Your task to perform on an android device: toggle improve location accuracy Image 0: 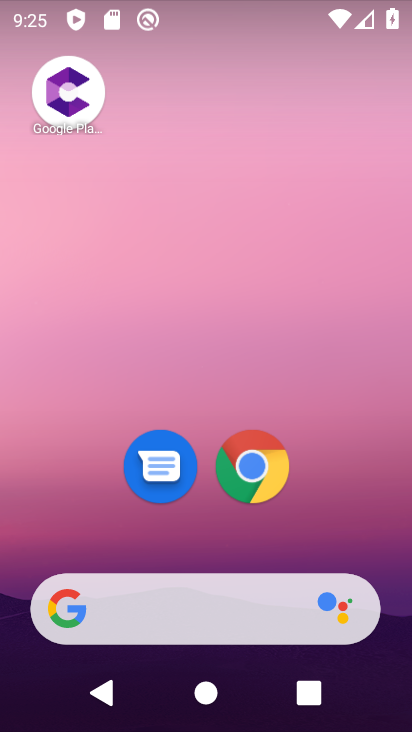
Step 0: drag from (192, 520) to (200, 196)
Your task to perform on an android device: toggle improve location accuracy Image 1: 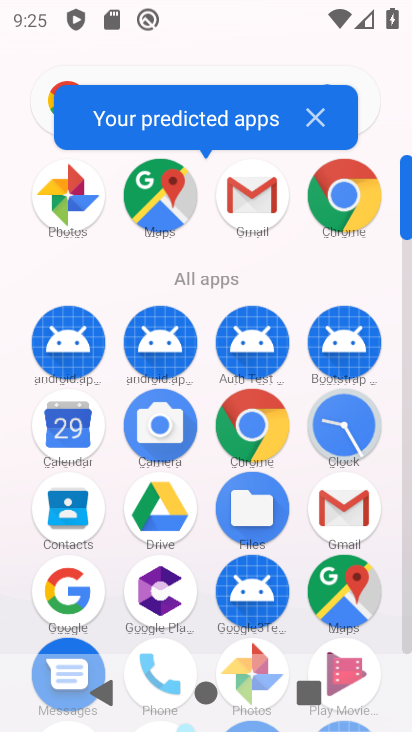
Step 1: drag from (203, 495) to (218, 277)
Your task to perform on an android device: toggle improve location accuracy Image 2: 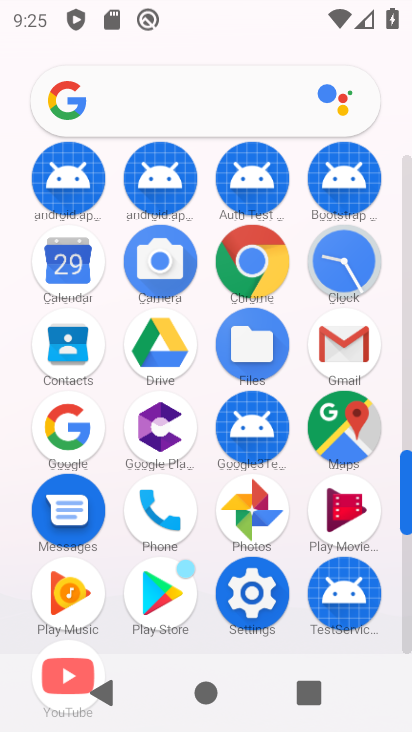
Step 2: click (232, 598)
Your task to perform on an android device: toggle improve location accuracy Image 3: 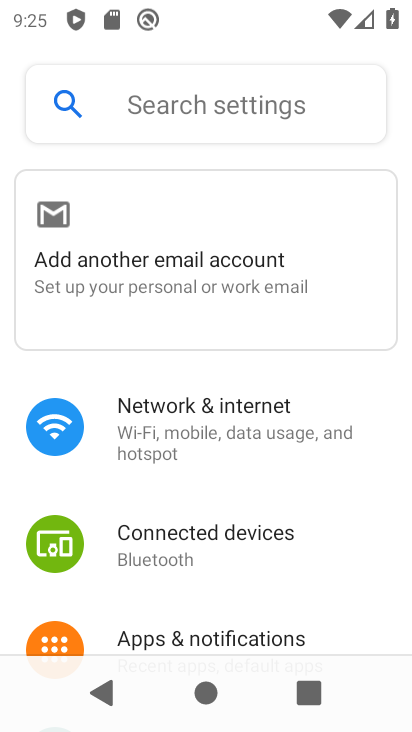
Step 3: drag from (187, 561) to (211, 294)
Your task to perform on an android device: toggle improve location accuracy Image 4: 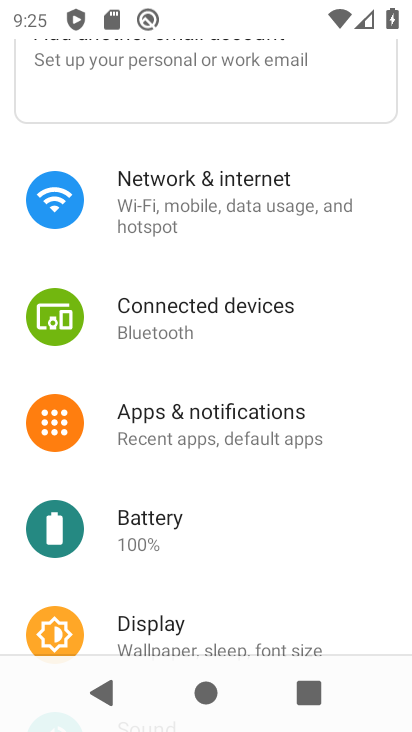
Step 4: drag from (222, 544) to (243, 274)
Your task to perform on an android device: toggle improve location accuracy Image 5: 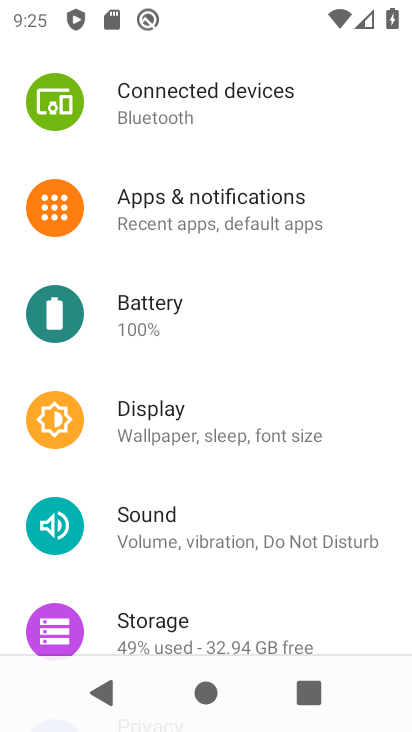
Step 5: drag from (213, 515) to (224, 286)
Your task to perform on an android device: toggle improve location accuracy Image 6: 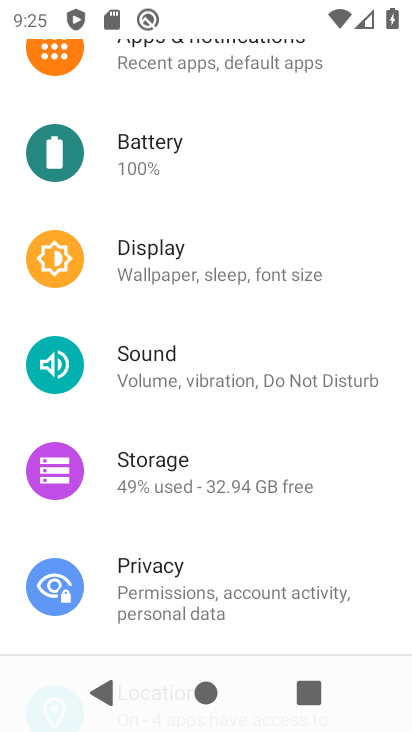
Step 6: drag from (224, 589) to (248, 291)
Your task to perform on an android device: toggle improve location accuracy Image 7: 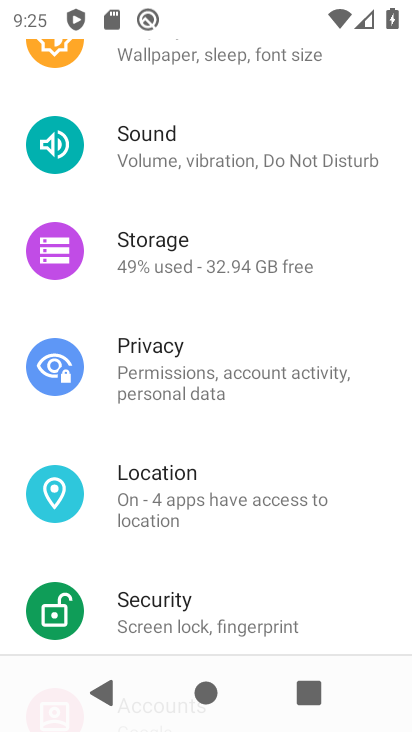
Step 7: click (244, 498)
Your task to perform on an android device: toggle improve location accuracy Image 8: 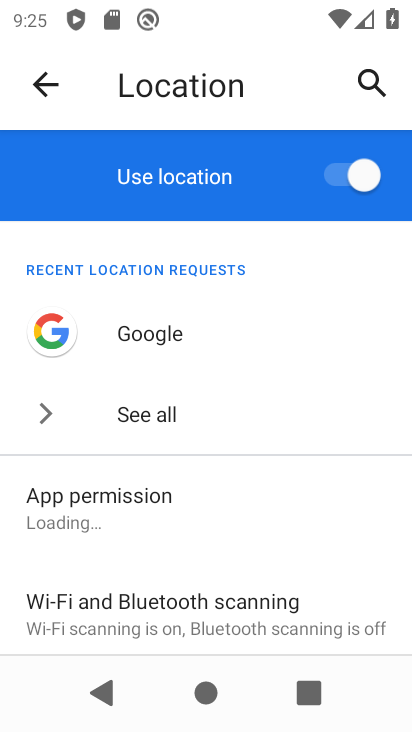
Step 8: drag from (213, 553) to (272, 259)
Your task to perform on an android device: toggle improve location accuracy Image 9: 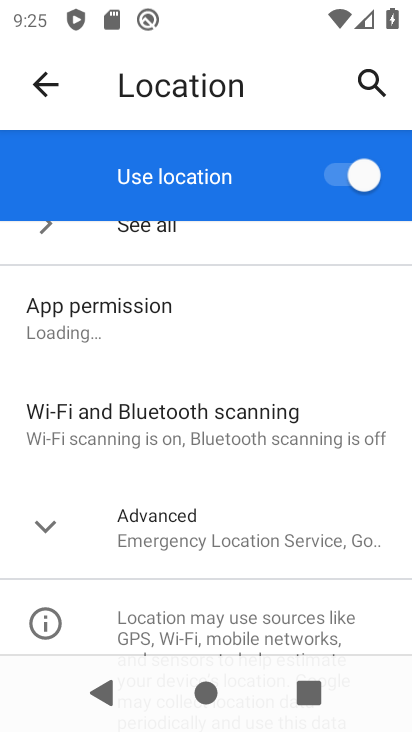
Step 9: click (228, 525)
Your task to perform on an android device: toggle improve location accuracy Image 10: 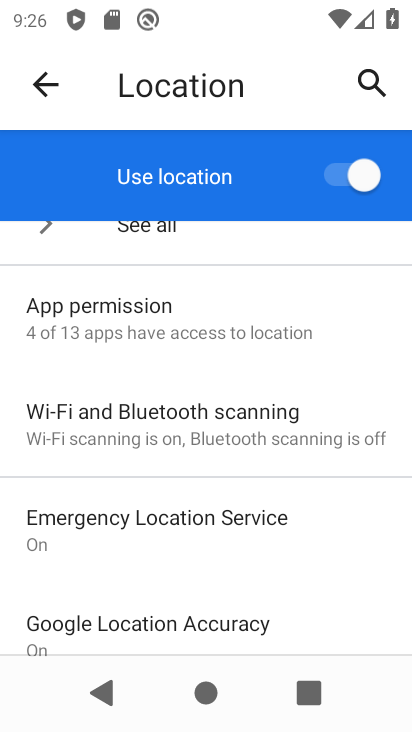
Step 10: click (223, 609)
Your task to perform on an android device: toggle improve location accuracy Image 11: 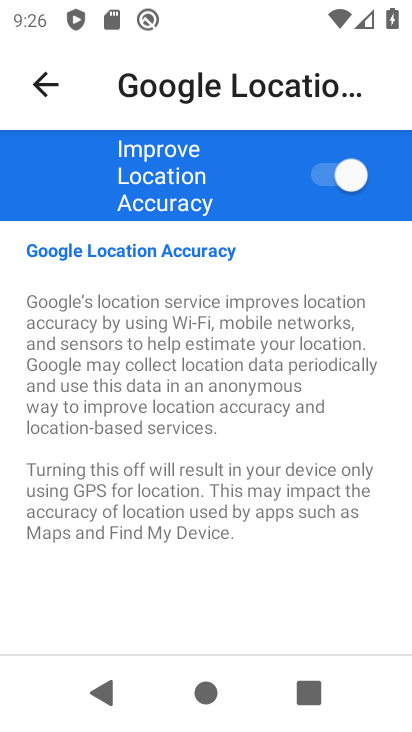
Step 11: click (323, 179)
Your task to perform on an android device: toggle improve location accuracy Image 12: 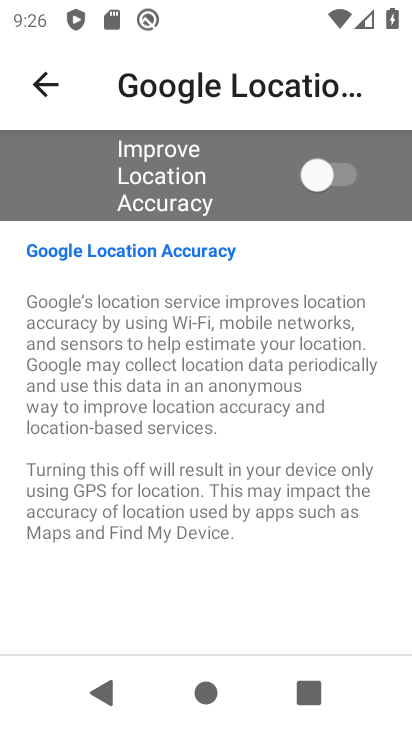
Step 12: task complete